Your task to perform on an android device: Open CNN.com Image 0: 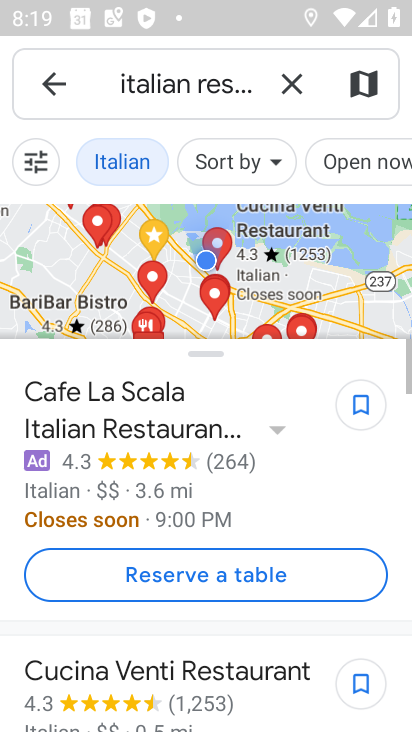
Step 0: press back button
Your task to perform on an android device: Open CNN.com Image 1: 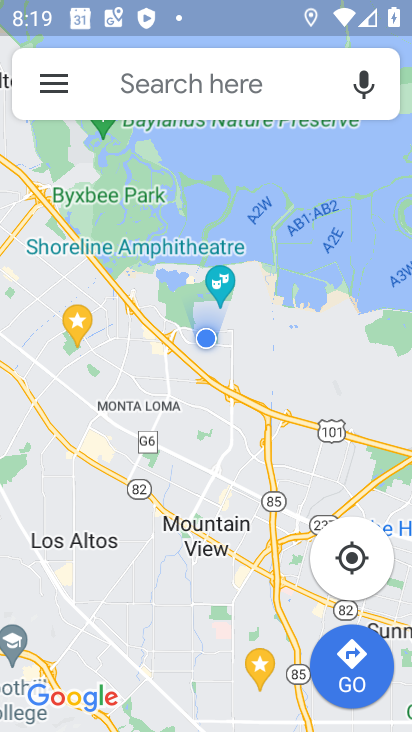
Step 1: press back button
Your task to perform on an android device: Open CNN.com Image 2: 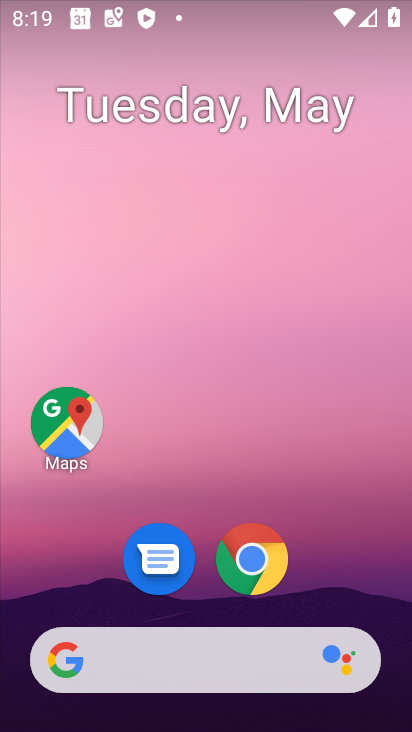
Step 2: click (240, 550)
Your task to perform on an android device: Open CNN.com Image 3: 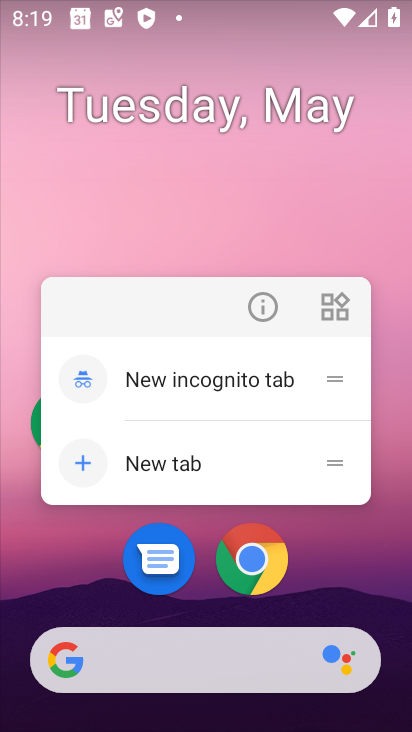
Step 3: click (253, 562)
Your task to perform on an android device: Open CNN.com Image 4: 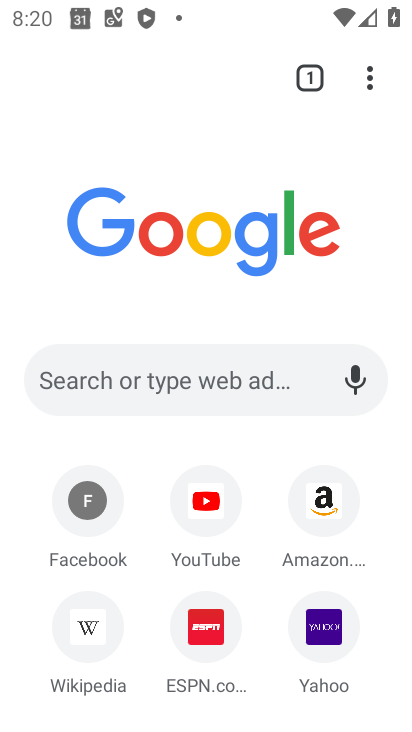
Step 4: click (192, 378)
Your task to perform on an android device: Open CNN.com Image 5: 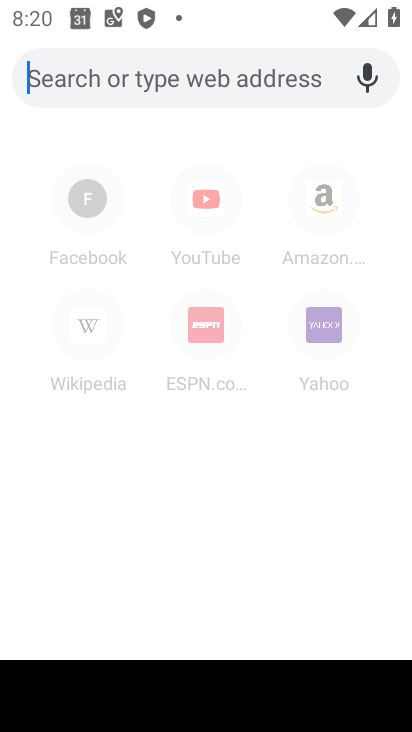
Step 5: type "cnn.com"
Your task to perform on an android device: Open CNN.com Image 6: 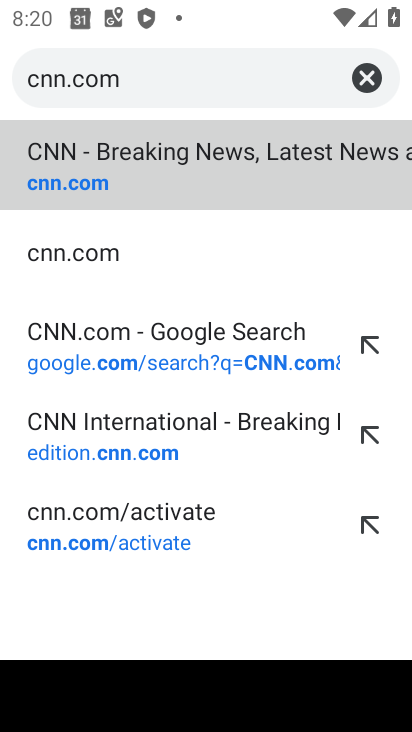
Step 6: click (110, 156)
Your task to perform on an android device: Open CNN.com Image 7: 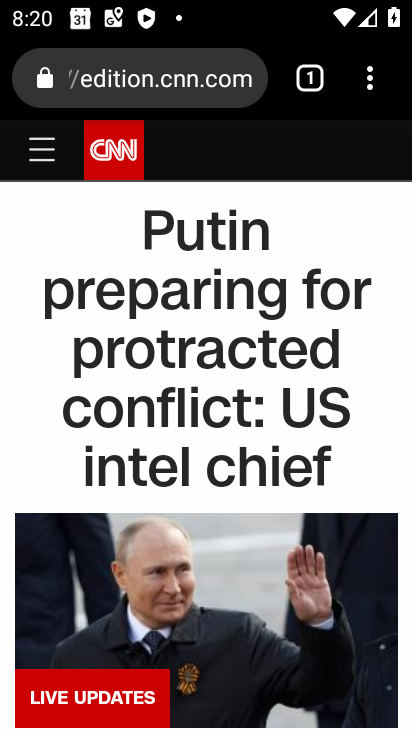
Step 7: task complete